Your task to perform on an android device: turn vacation reply on in the gmail app Image 0: 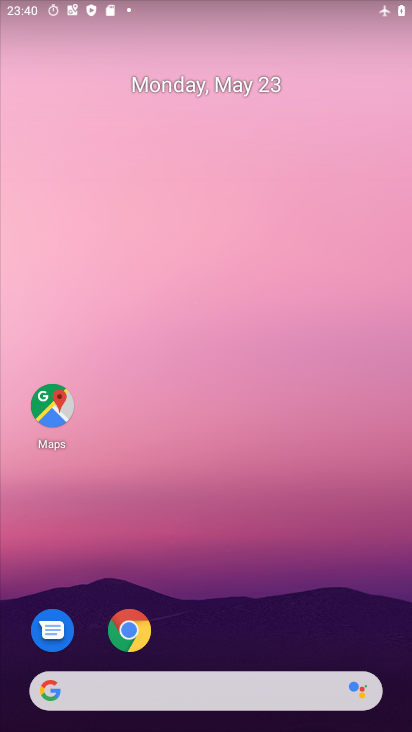
Step 0: drag from (311, 656) to (340, 9)
Your task to perform on an android device: turn vacation reply on in the gmail app Image 1: 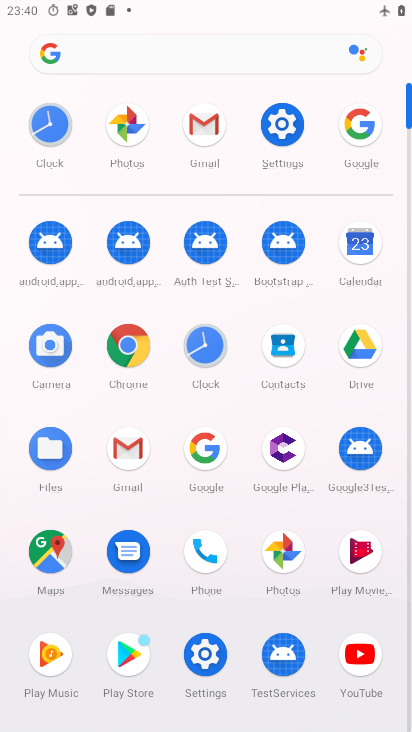
Step 1: click (194, 129)
Your task to perform on an android device: turn vacation reply on in the gmail app Image 2: 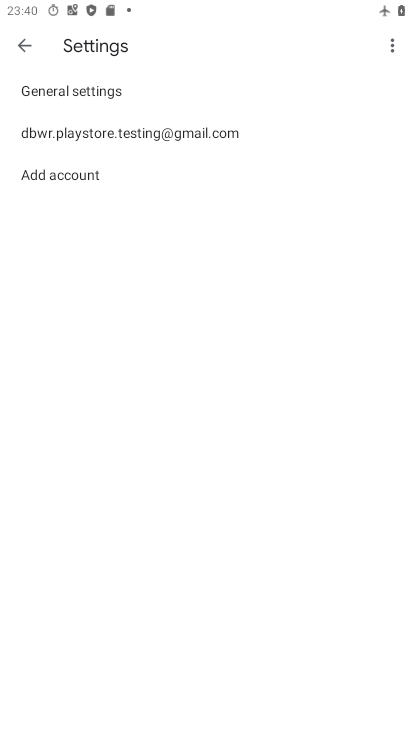
Step 2: click (82, 137)
Your task to perform on an android device: turn vacation reply on in the gmail app Image 3: 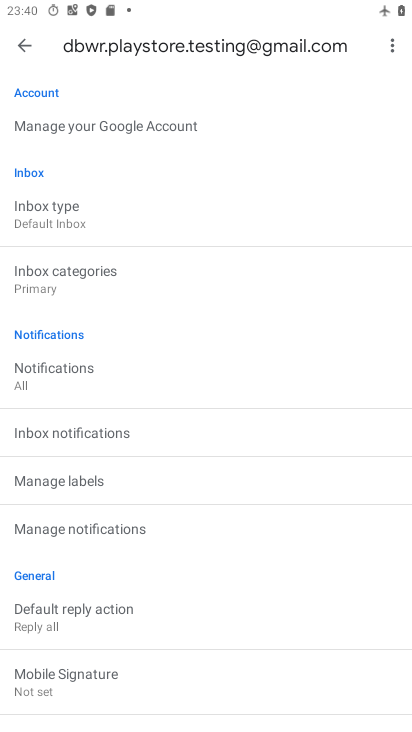
Step 3: drag from (174, 527) to (154, 152)
Your task to perform on an android device: turn vacation reply on in the gmail app Image 4: 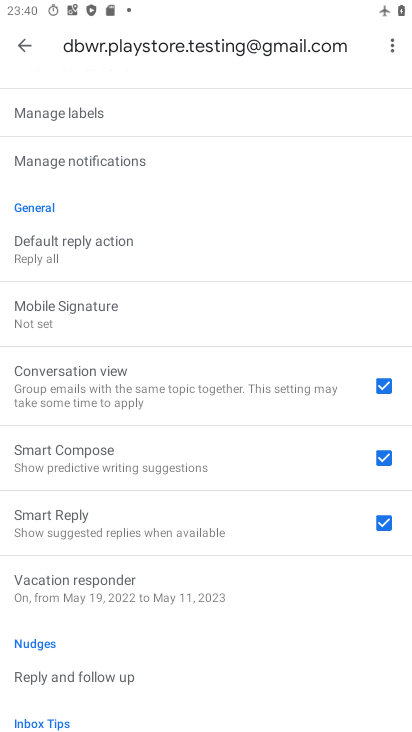
Step 4: click (84, 584)
Your task to perform on an android device: turn vacation reply on in the gmail app Image 5: 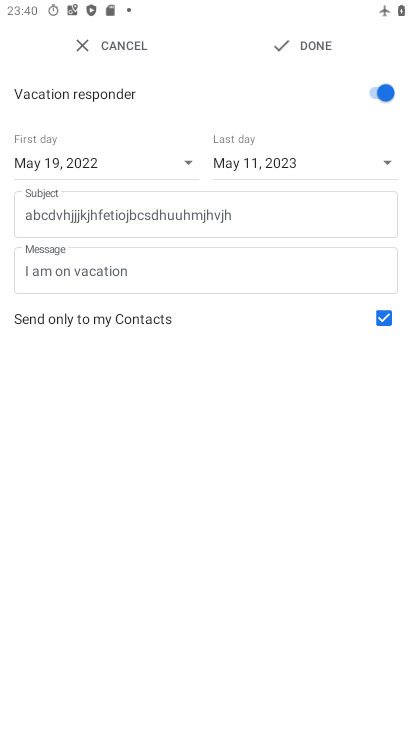
Step 5: click (324, 44)
Your task to perform on an android device: turn vacation reply on in the gmail app Image 6: 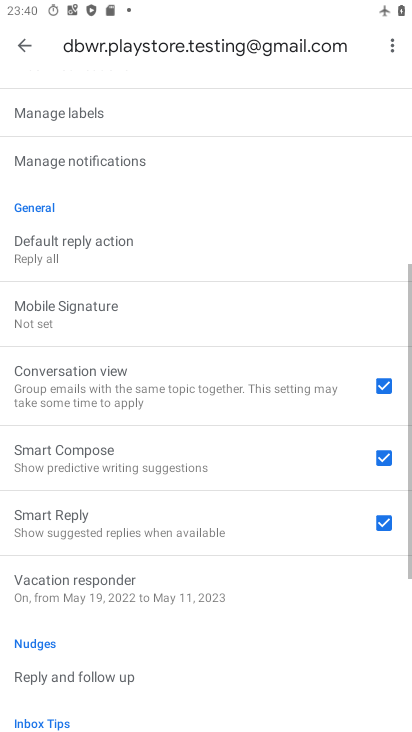
Step 6: task complete